Your task to perform on an android device: Open Google Chrome and open the bookmarks view Image 0: 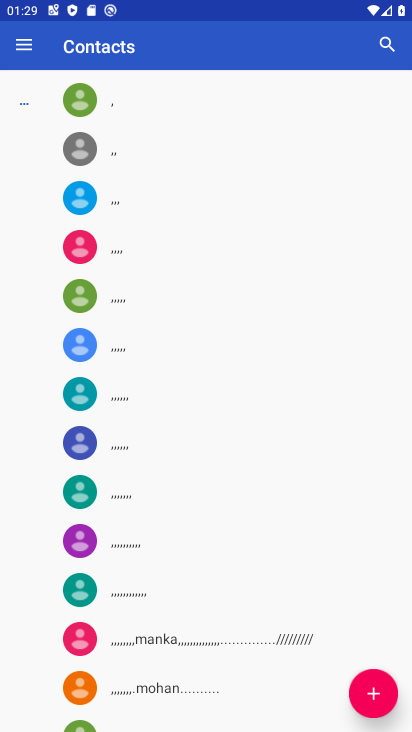
Step 0: press home button
Your task to perform on an android device: Open Google Chrome and open the bookmarks view Image 1: 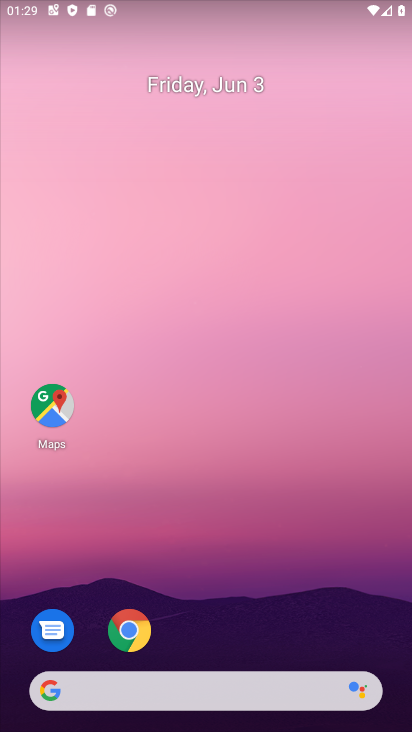
Step 1: drag from (223, 524) to (182, 256)
Your task to perform on an android device: Open Google Chrome and open the bookmarks view Image 2: 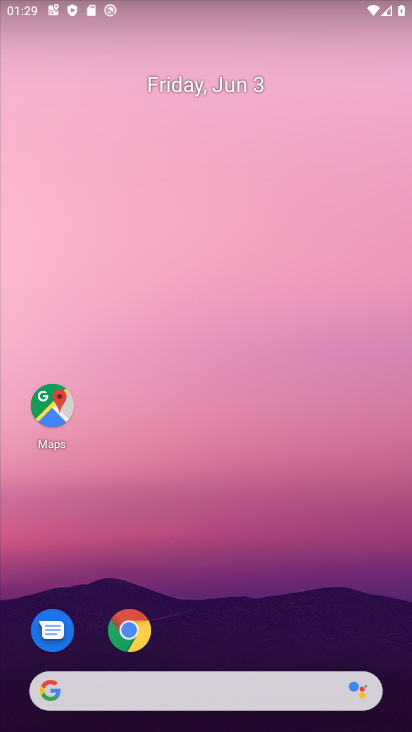
Step 2: click (145, 632)
Your task to perform on an android device: Open Google Chrome and open the bookmarks view Image 3: 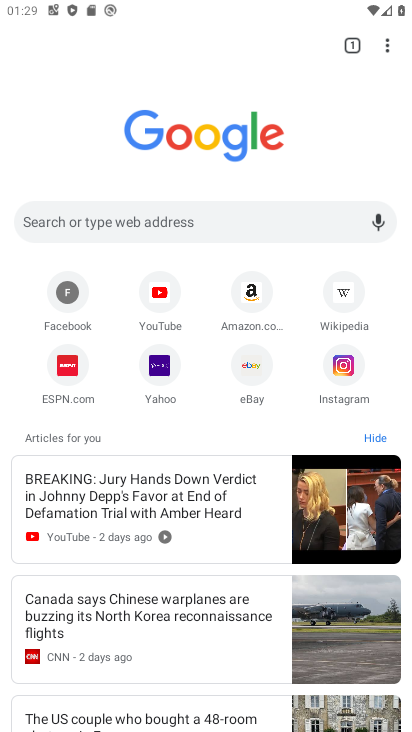
Step 3: click (378, 55)
Your task to perform on an android device: Open Google Chrome and open the bookmarks view Image 4: 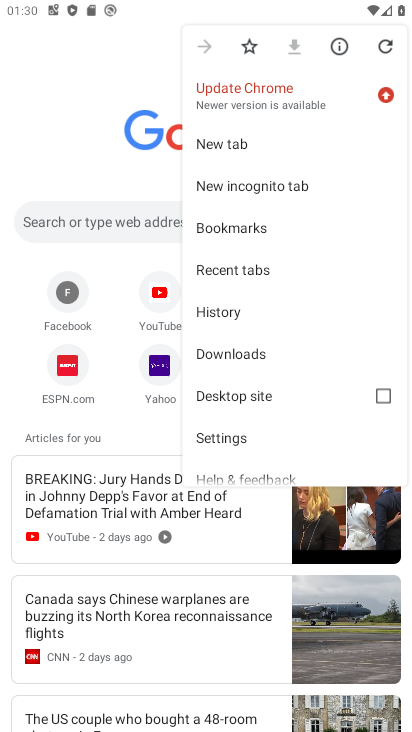
Step 4: click (266, 232)
Your task to perform on an android device: Open Google Chrome and open the bookmarks view Image 5: 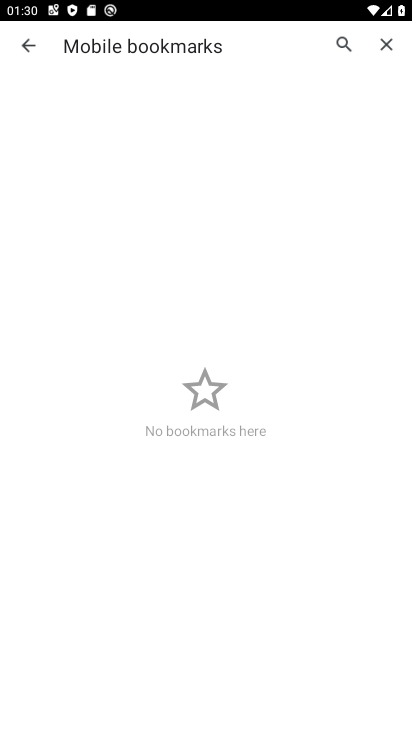
Step 5: task complete